Your task to perform on an android device: empty trash in the gmail app Image 0: 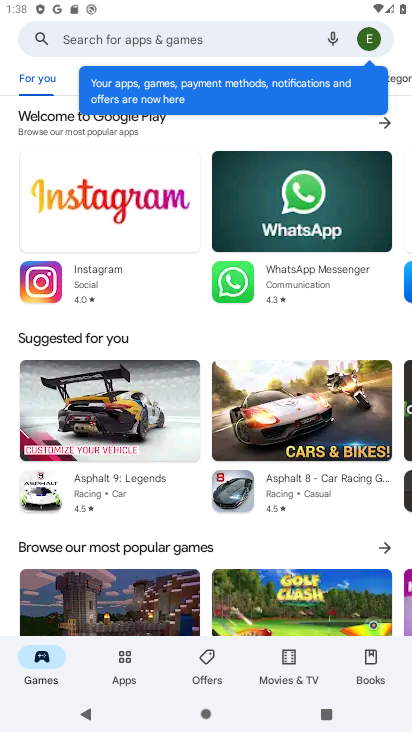
Step 0: press home button
Your task to perform on an android device: empty trash in the gmail app Image 1: 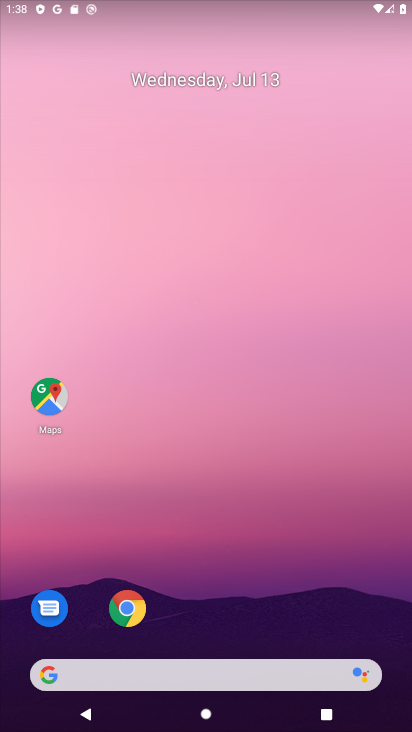
Step 1: drag from (209, 649) to (137, 153)
Your task to perform on an android device: empty trash in the gmail app Image 2: 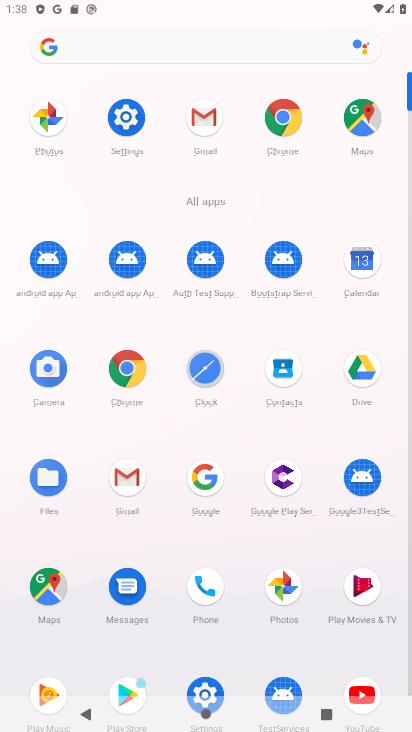
Step 2: click (193, 132)
Your task to perform on an android device: empty trash in the gmail app Image 3: 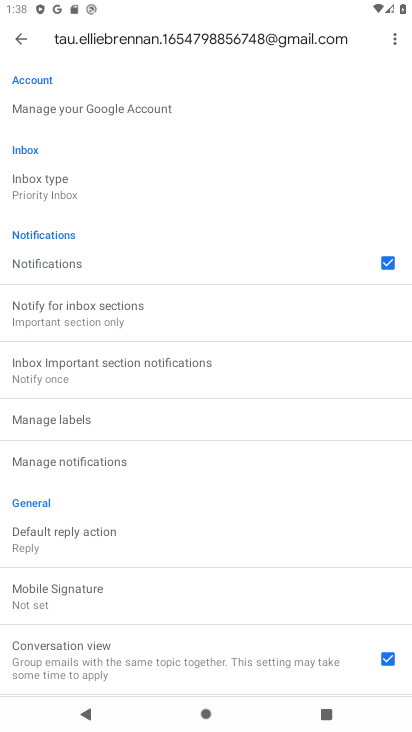
Step 3: click (32, 48)
Your task to perform on an android device: empty trash in the gmail app Image 4: 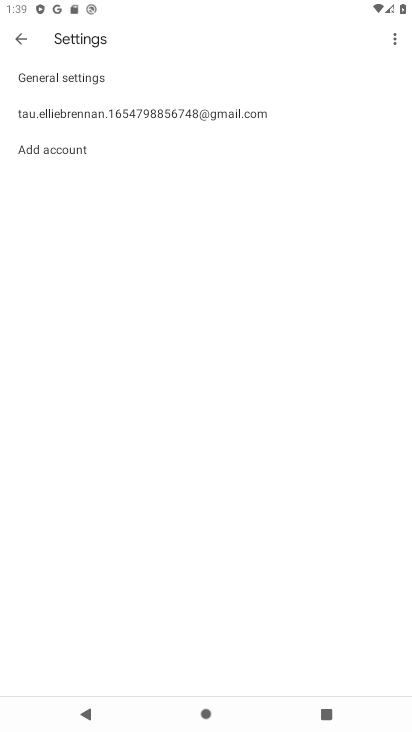
Step 4: click (32, 26)
Your task to perform on an android device: empty trash in the gmail app Image 5: 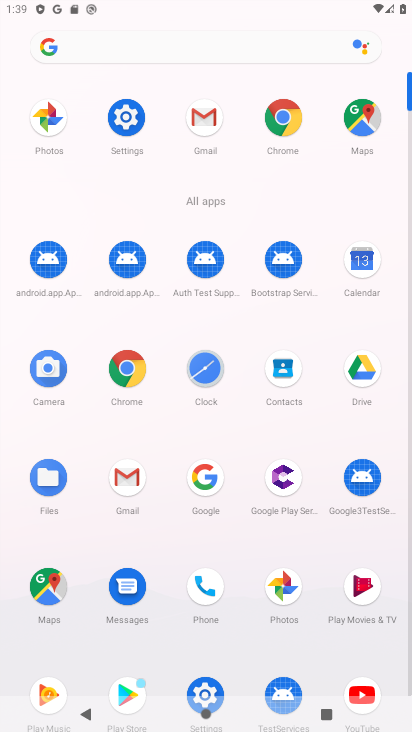
Step 5: click (203, 116)
Your task to perform on an android device: empty trash in the gmail app Image 6: 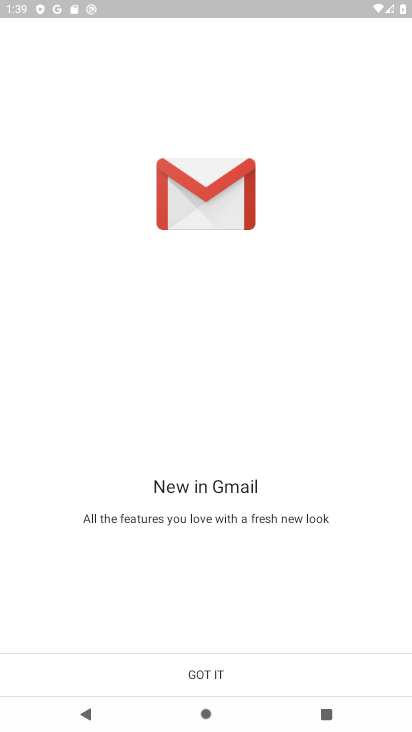
Step 6: click (237, 686)
Your task to perform on an android device: empty trash in the gmail app Image 7: 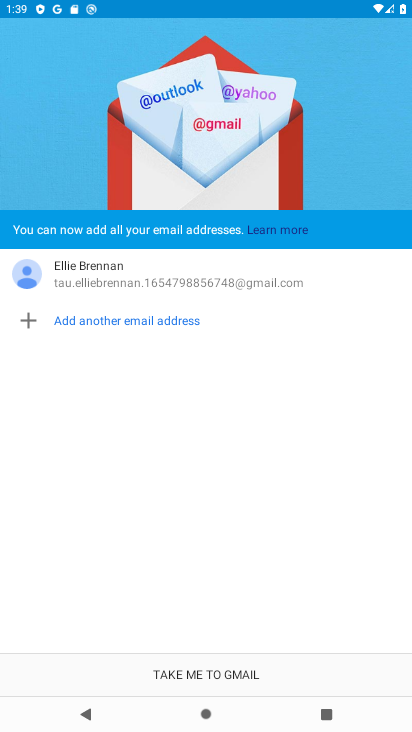
Step 7: click (237, 686)
Your task to perform on an android device: empty trash in the gmail app Image 8: 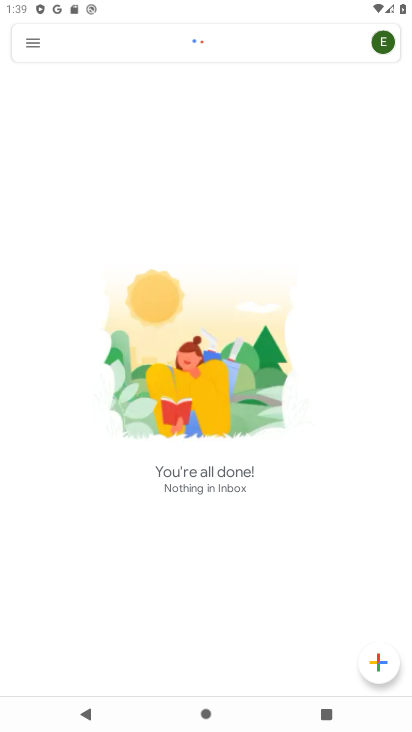
Step 8: click (23, 47)
Your task to perform on an android device: empty trash in the gmail app Image 9: 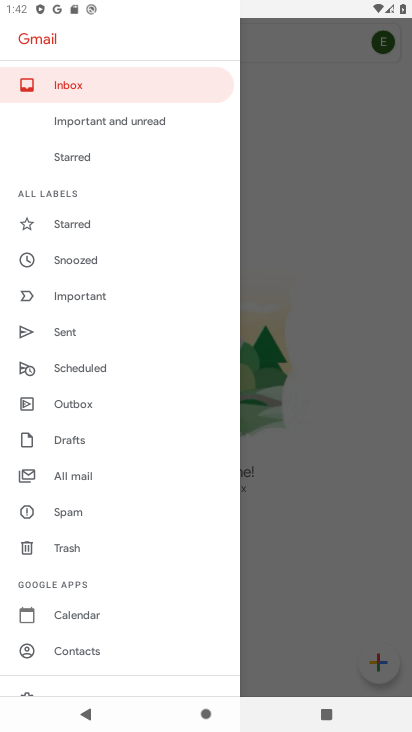
Step 9: click (76, 551)
Your task to perform on an android device: empty trash in the gmail app Image 10: 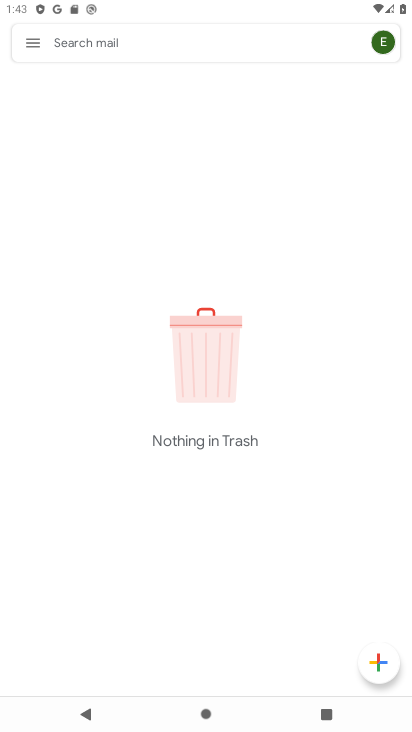
Step 10: task complete